Your task to perform on an android device: Search for flights from Barcelona to Boston Image 0: 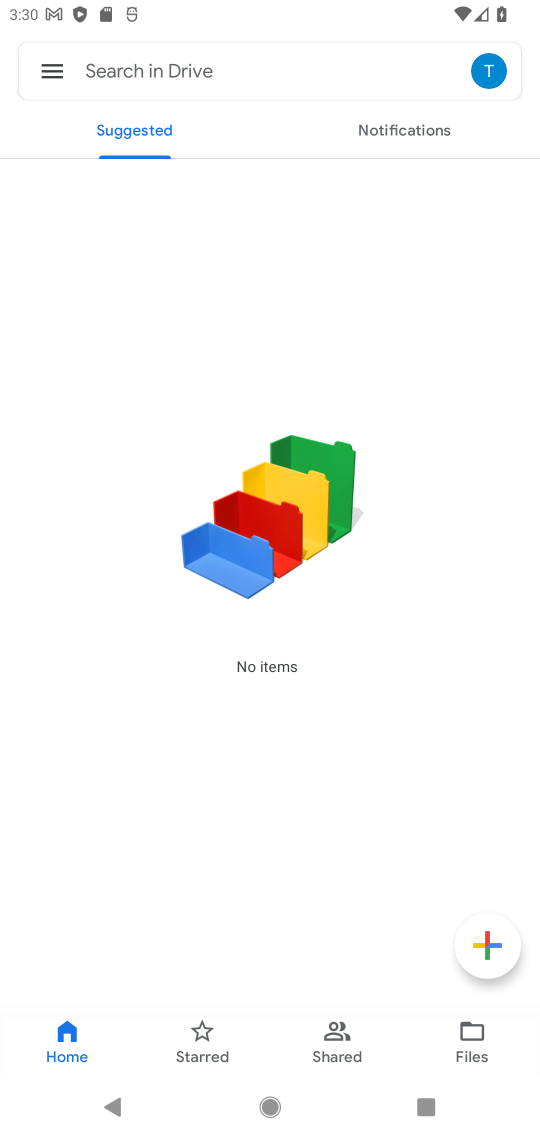
Step 0: press home button
Your task to perform on an android device: Search for flights from Barcelona to Boston Image 1: 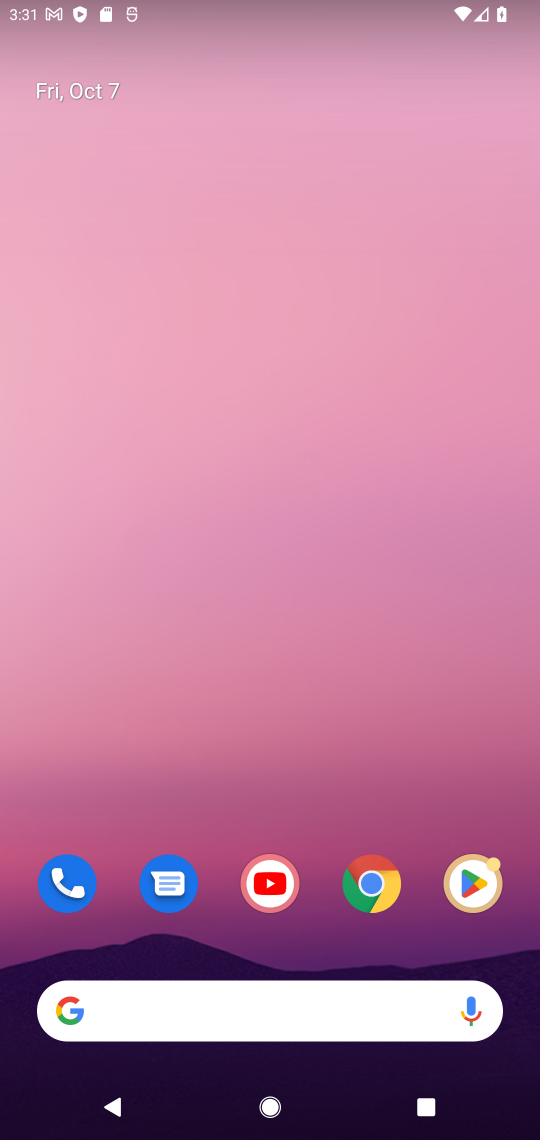
Step 1: click (378, 903)
Your task to perform on an android device: Search for flights from Barcelona to Boston Image 2: 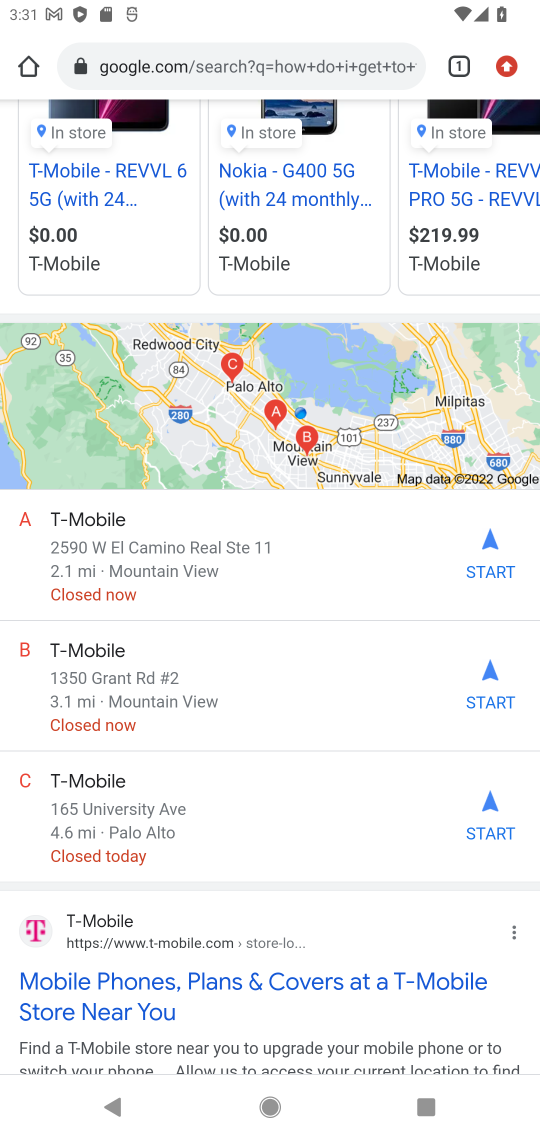
Step 2: click (247, 67)
Your task to perform on an android device: Search for flights from Barcelona to Boston Image 3: 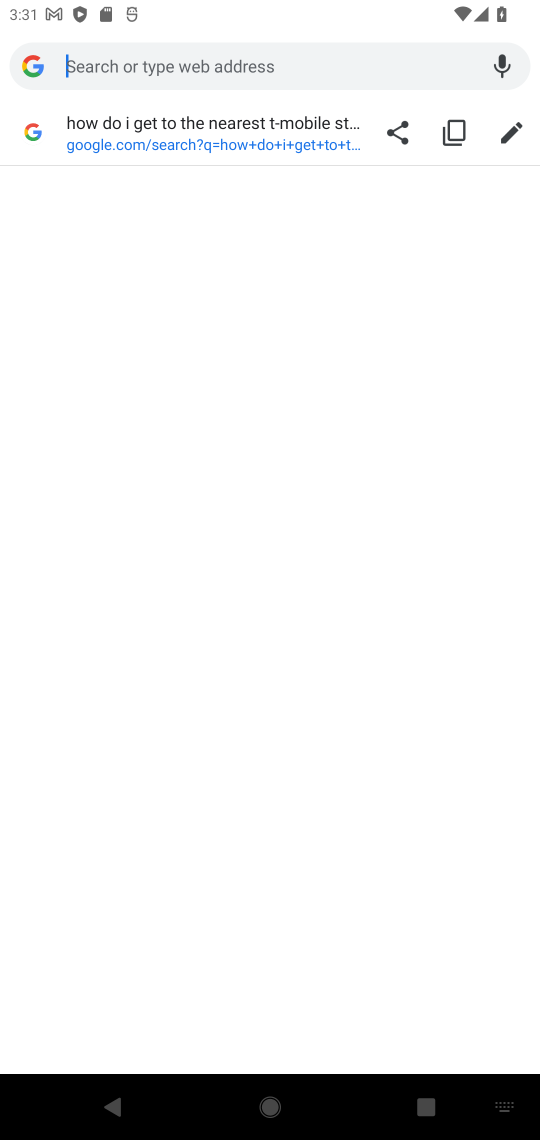
Step 3: type "flights from Barcelona to Boston"
Your task to perform on an android device: Search for flights from Barcelona to Boston Image 4: 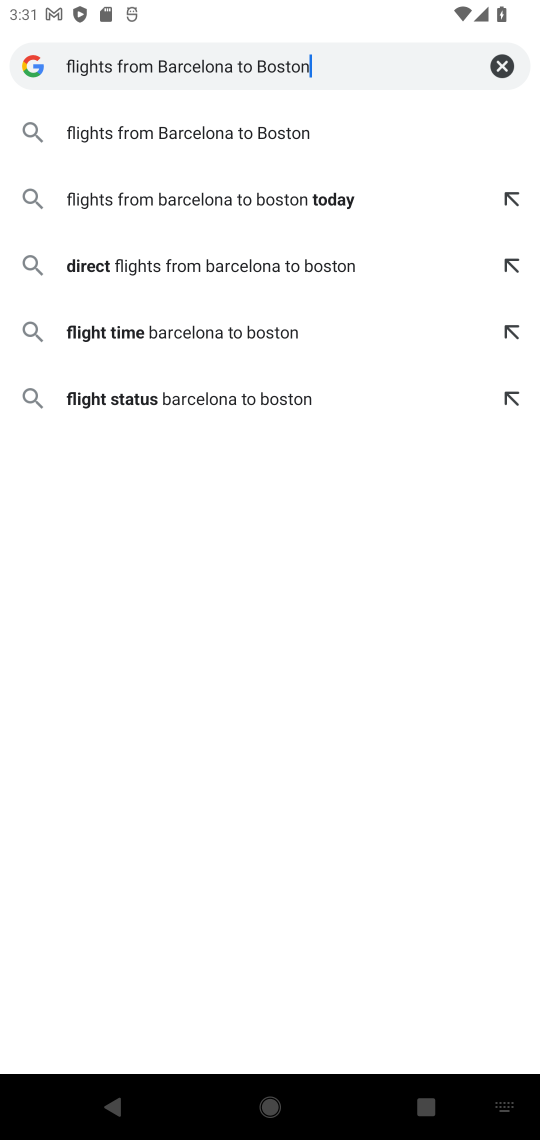
Step 4: click (223, 130)
Your task to perform on an android device: Search for flights from Barcelona to Boston Image 5: 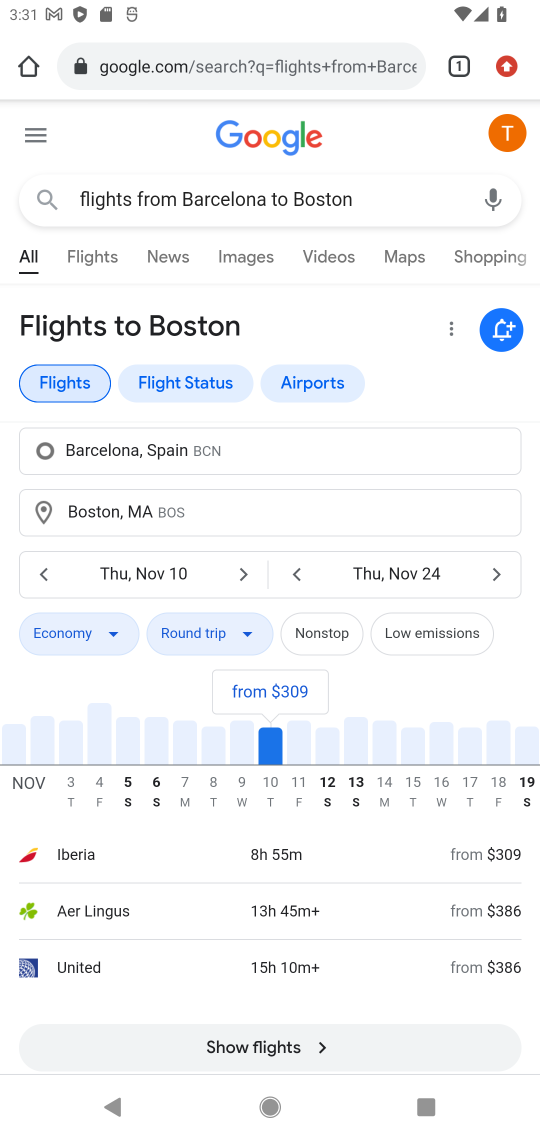
Step 5: click (429, 322)
Your task to perform on an android device: Search for flights from Barcelona to Boston Image 6: 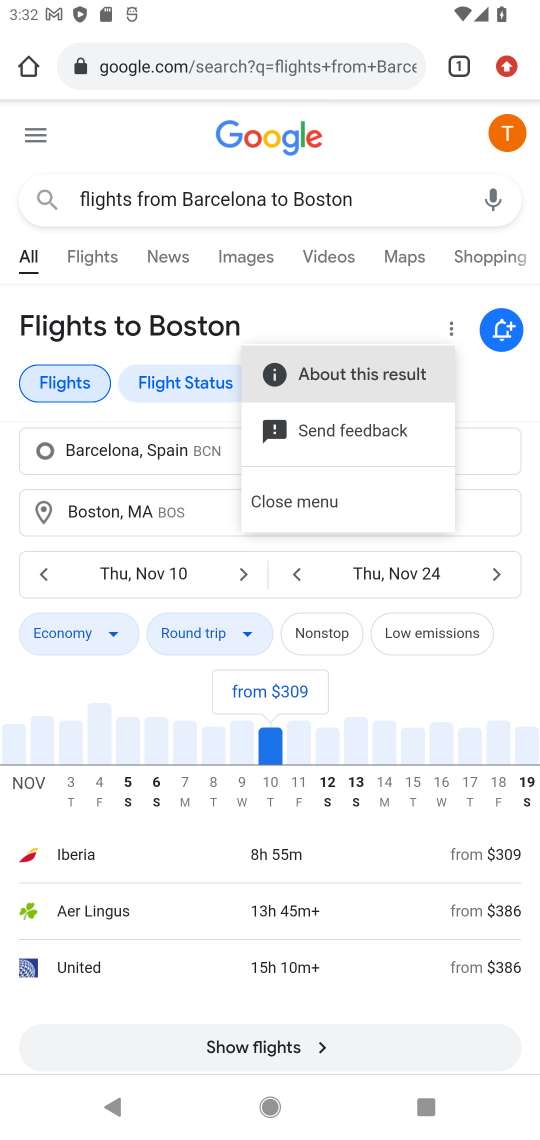
Step 6: task complete